Your task to perform on an android device: turn off airplane mode Image 0: 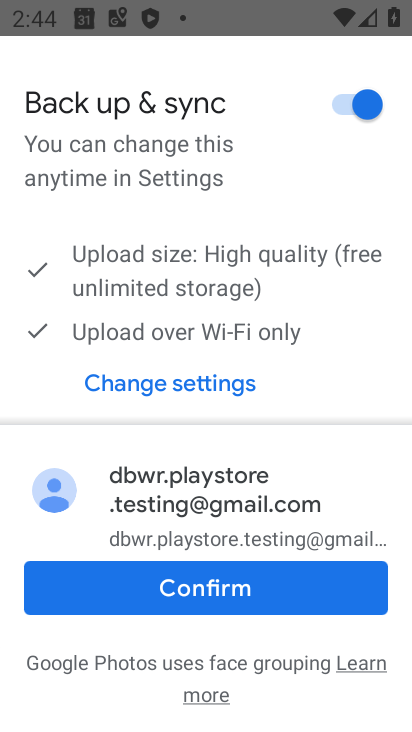
Step 0: press home button
Your task to perform on an android device: turn off airplane mode Image 1: 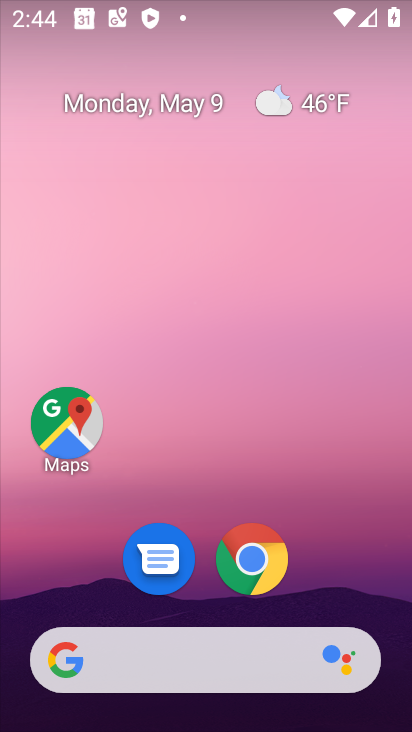
Step 1: drag from (313, 551) to (319, 198)
Your task to perform on an android device: turn off airplane mode Image 2: 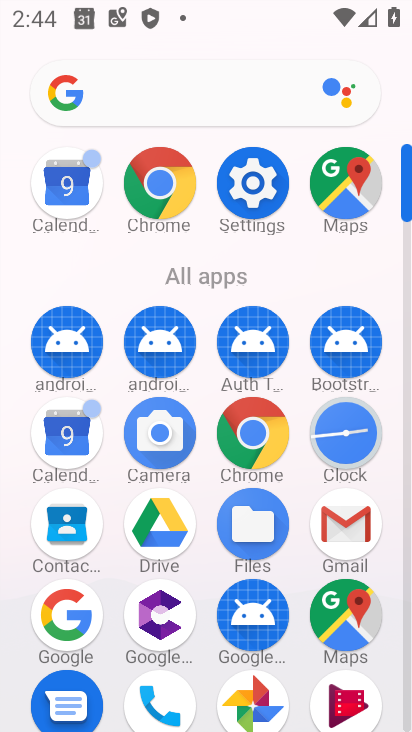
Step 2: click (249, 180)
Your task to perform on an android device: turn off airplane mode Image 3: 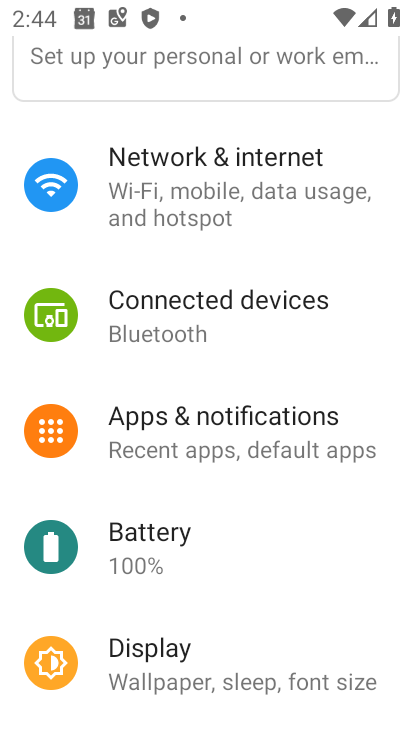
Step 3: click (249, 180)
Your task to perform on an android device: turn off airplane mode Image 4: 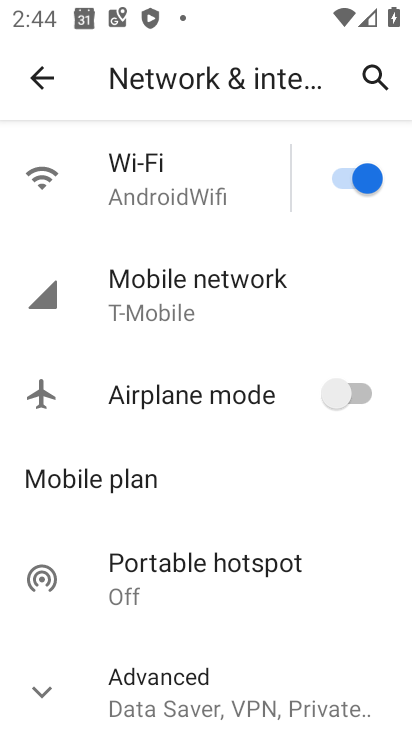
Step 4: task complete